Your task to perform on an android device: open chrome and create a bookmark for the current page Image 0: 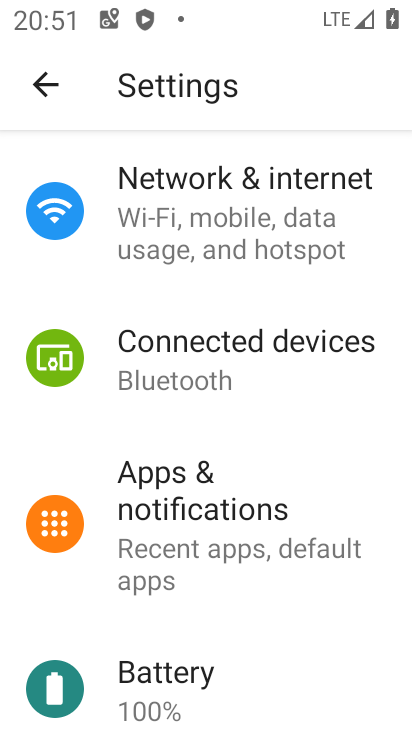
Step 0: press home button
Your task to perform on an android device: open chrome and create a bookmark for the current page Image 1: 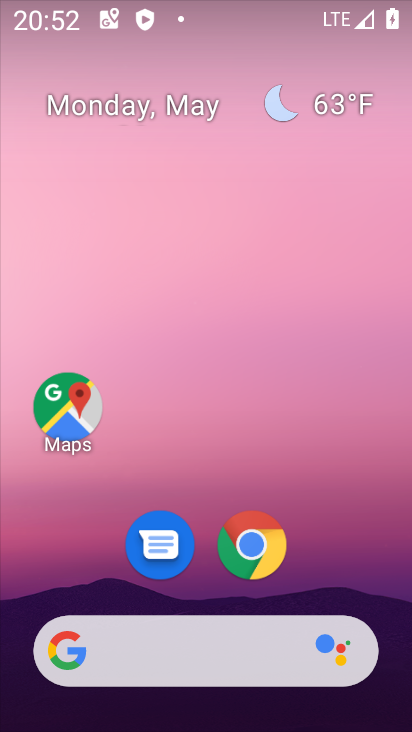
Step 1: drag from (165, 639) to (251, 3)
Your task to perform on an android device: open chrome and create a bookmark for the current page Image 2: 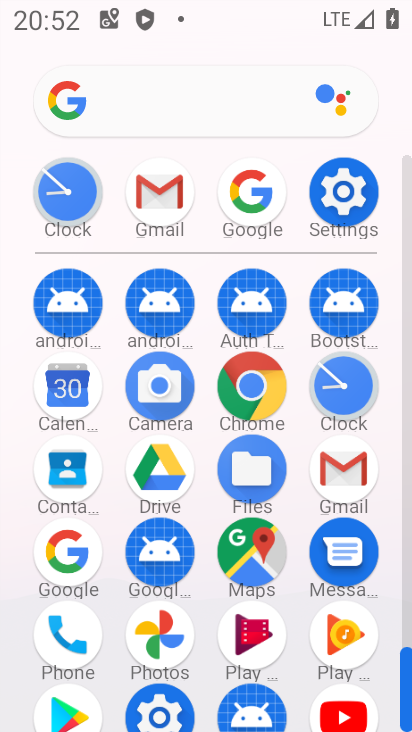
Step 2: click (252, 380)
Your task to perform on an android device: open chrome and create a bookmark for the current page Image 3: 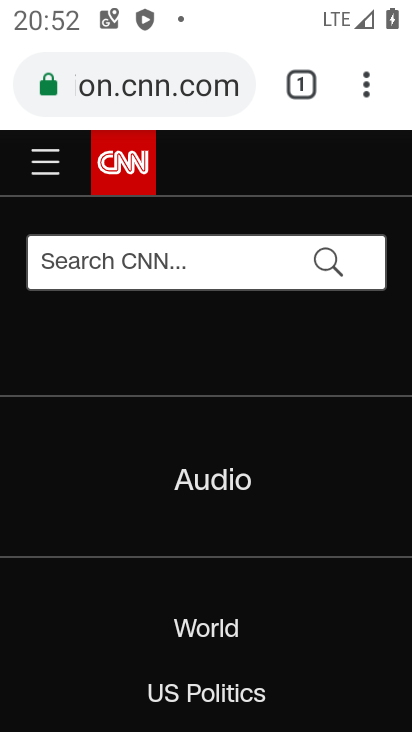
Step 3: click (362, 62)
Your task to perform on an android device: open chrome and create a bookmark for the current page Image 4: 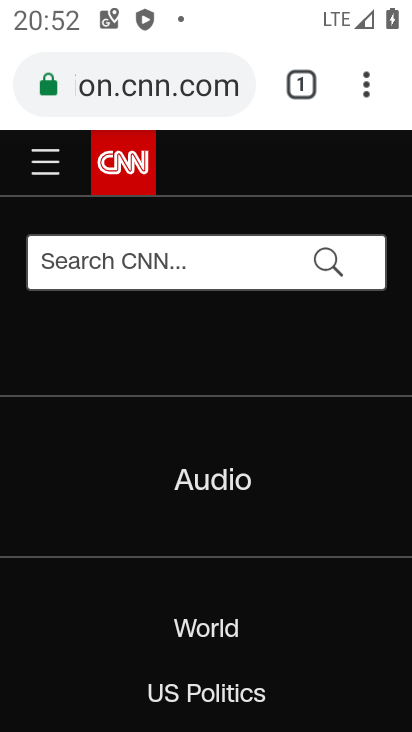
Step 4: task complete